Your task to perform on an android device: Open Wikipedia Image 0: 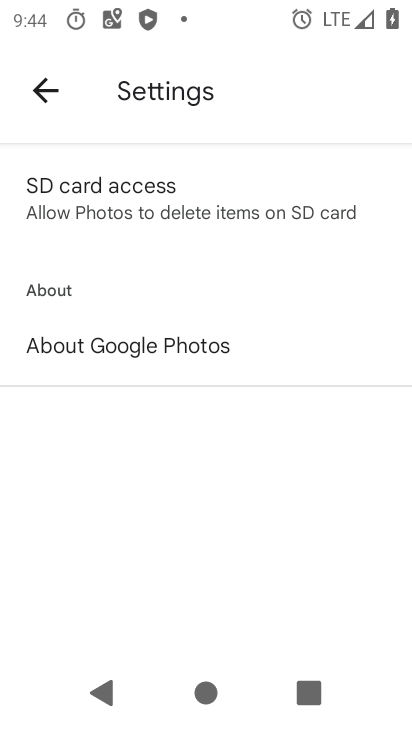
Step 0: drag from (200, 529) to (236, 262)
Your task to perform on an android device: Open Wikipedia Image 1: 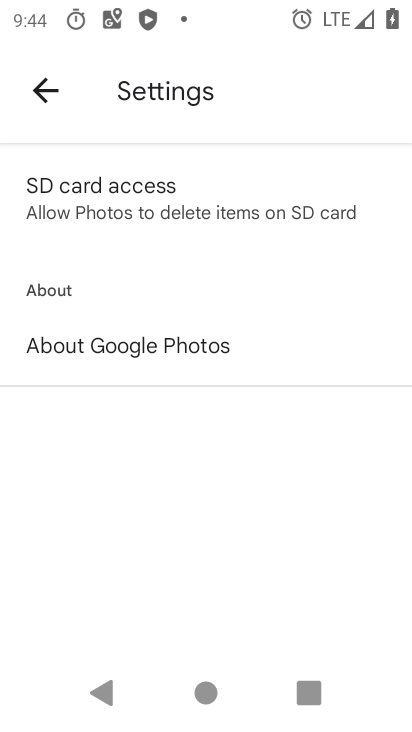
Step 1: press home button
Your task to perform on an android device: Open Wikipedia Image 2: 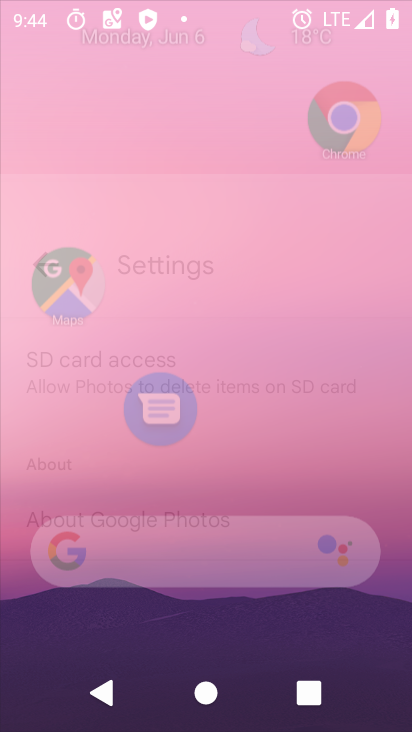
Step 2: drag from (200, 555) to (224, 179)
Your task to perform on an android device: Open Wikipedia Image 3: 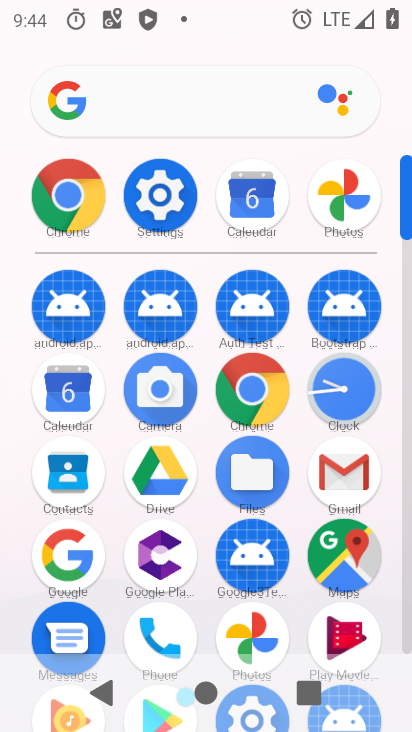
Step 3: click (161, 107)
Your task to perform on an android device: Open Wikipedia Image 4: 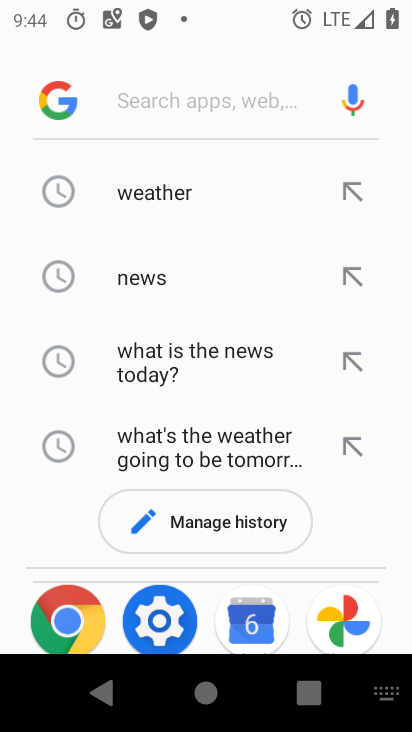
Step 4: type "Wikipedia"
Your task to perform on an android device: Open Wikipedia Image 5: 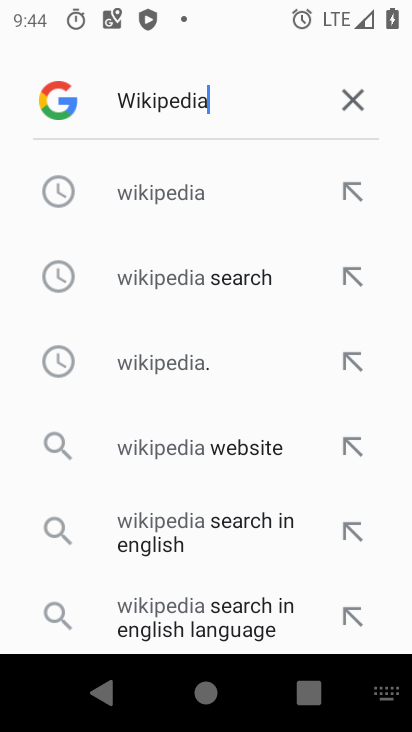
Step 5: click (197, 192)
Your task to perform on an android device: Open Wikipedia Image 6: 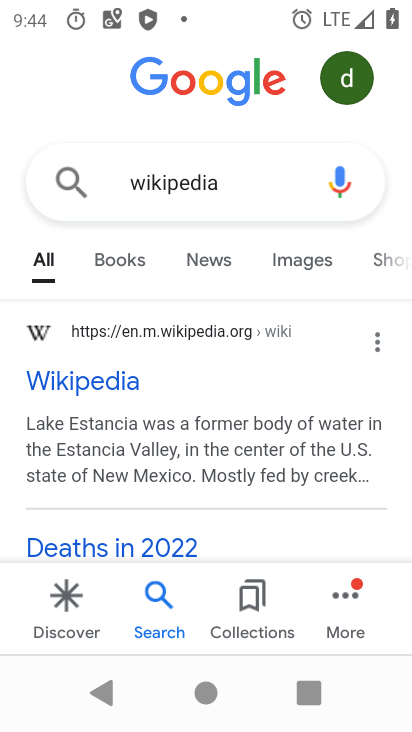
Step 6: drag from (203, 466) to (254, 185)
Your task to perform on an android device: Open Wikipedia Image 7: 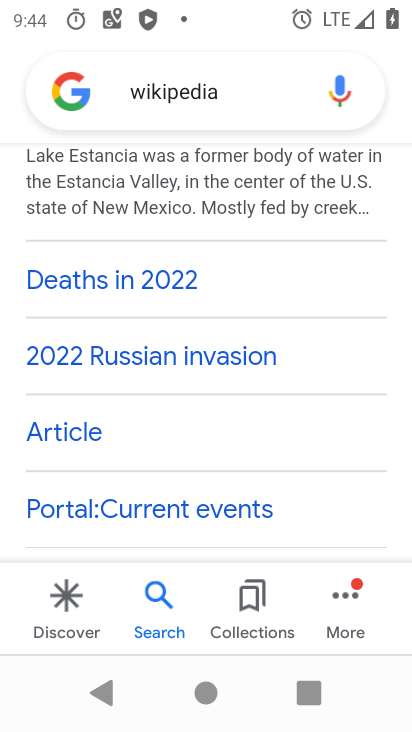
Step 7: drag from (127, 220) to (320, 593)
Your task to perform on an android device: Open Wikipedia Image 8: 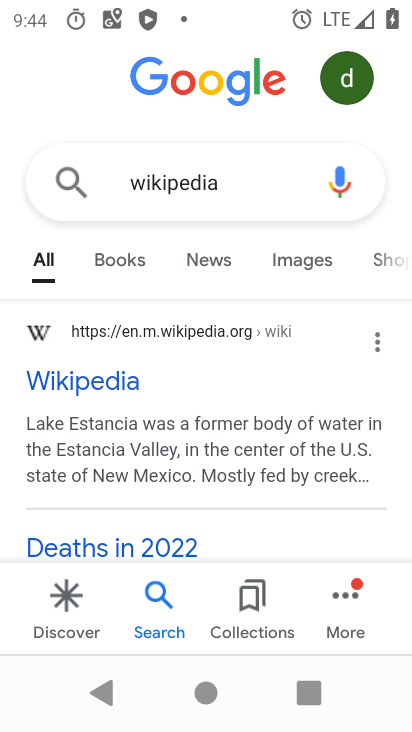
Step 8: click (95, 381)
Your task to perform on an android device: Open Wikipedia Image 9: 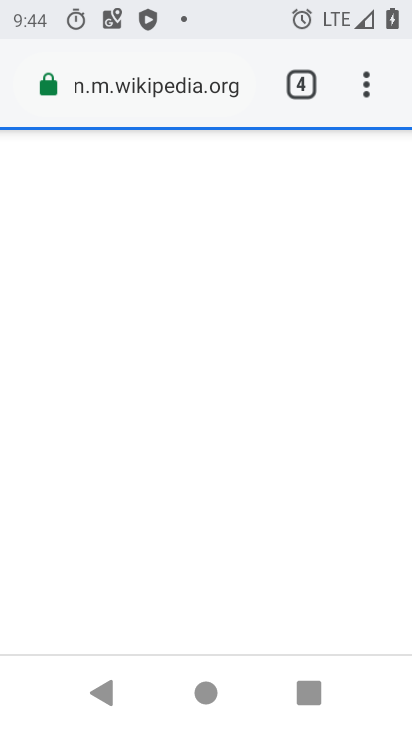
Step 9: task complete